Your task to perform on an android device: check storage Image 0: 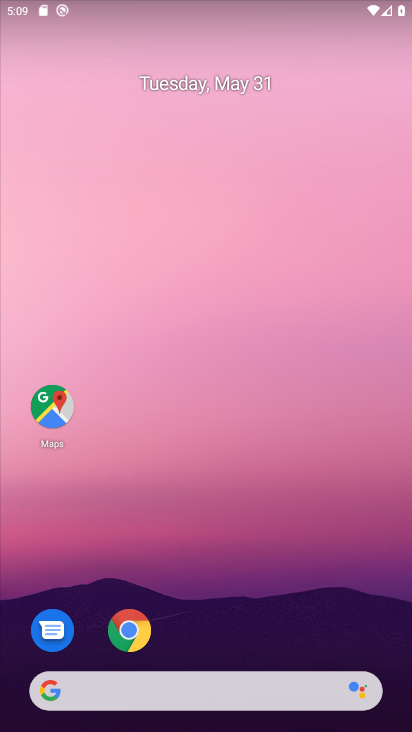
Step 0: drag from (171, 620) to (194, 158)
Your task to perform on an android device: check storage Image 1: 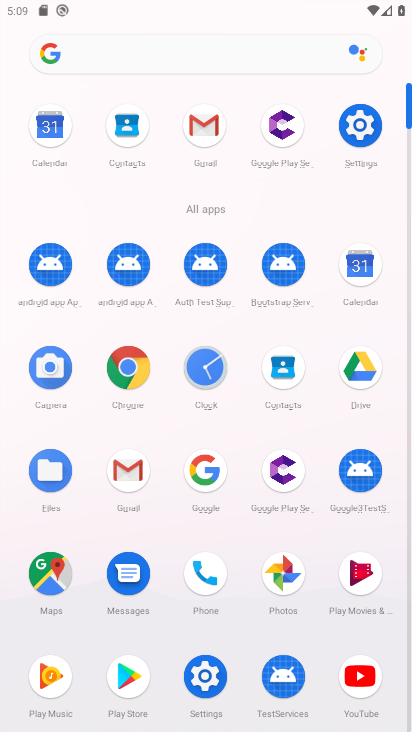
Step 1: click (353, 123)
Your task to perform on an android device: check storage Image 2: 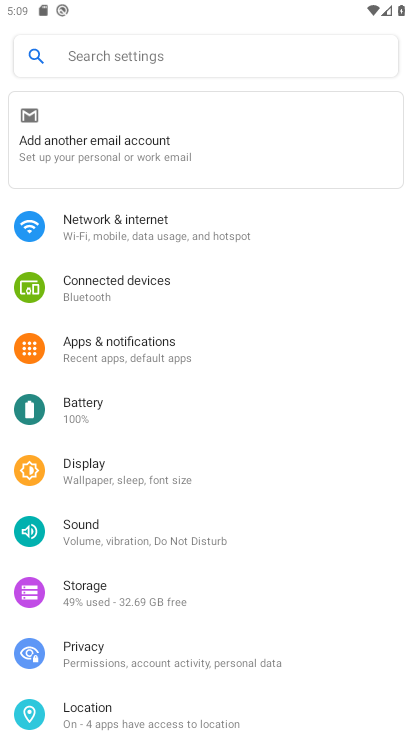
Step 2: click (126, 588)
Your task to perform on an android device: check storage Image 3: 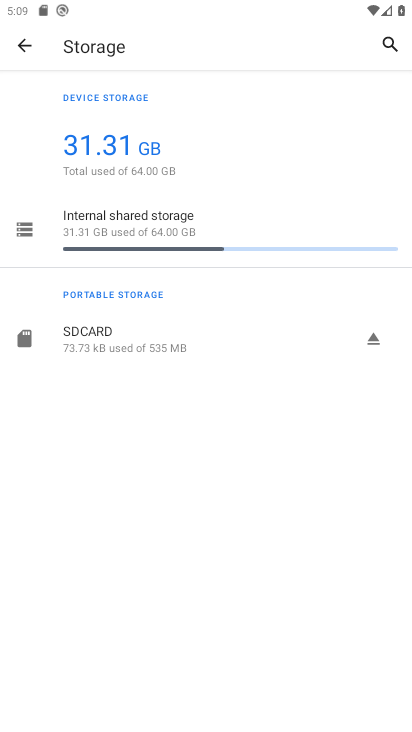
Step 3: task complete